Your task to perform on an android device: open app "Lyft - Rideshare, Bikes, Scooters & Transit" (install if not already installed), go to login, and select forgot password Image 0: 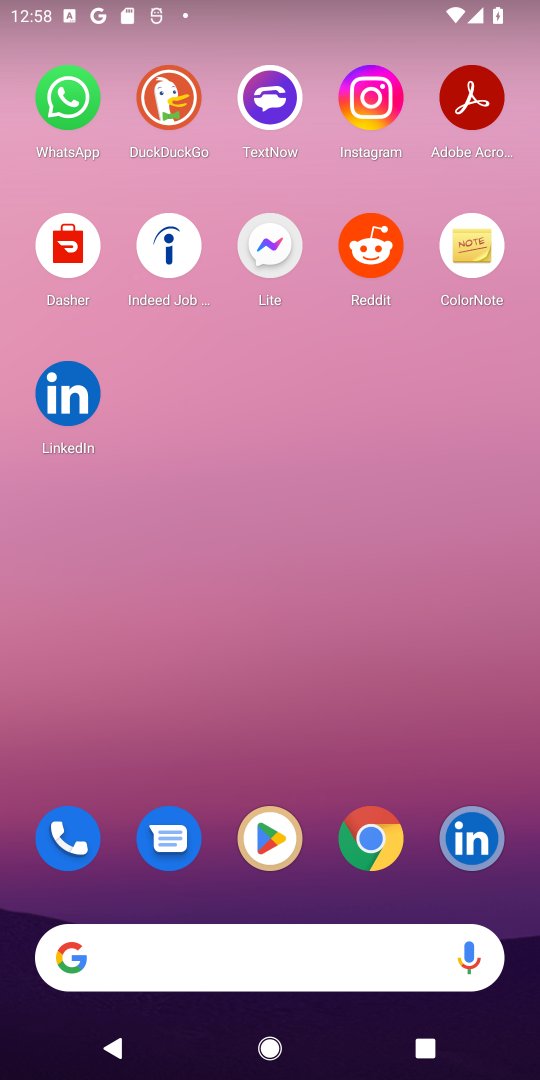
Step 0: click (271, 820)
Your task to perform on an android device: open app "Lyft - Rideshare, Bikes, Scooters & Transit" (install if not already installed), go to login, and select forgot password Image 1: 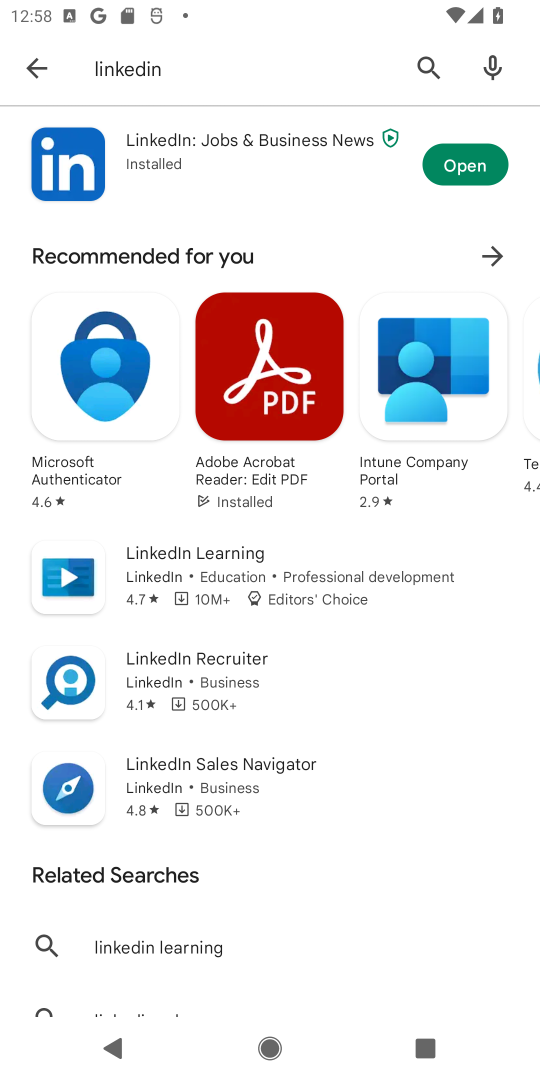
Step 1: click (414, 62)
Your task to perform on an android device: open app "Lyft - Rideshare, Bikes, Scooters & Transit" (install if not already installed), go to login, and select forgot password Image 2: 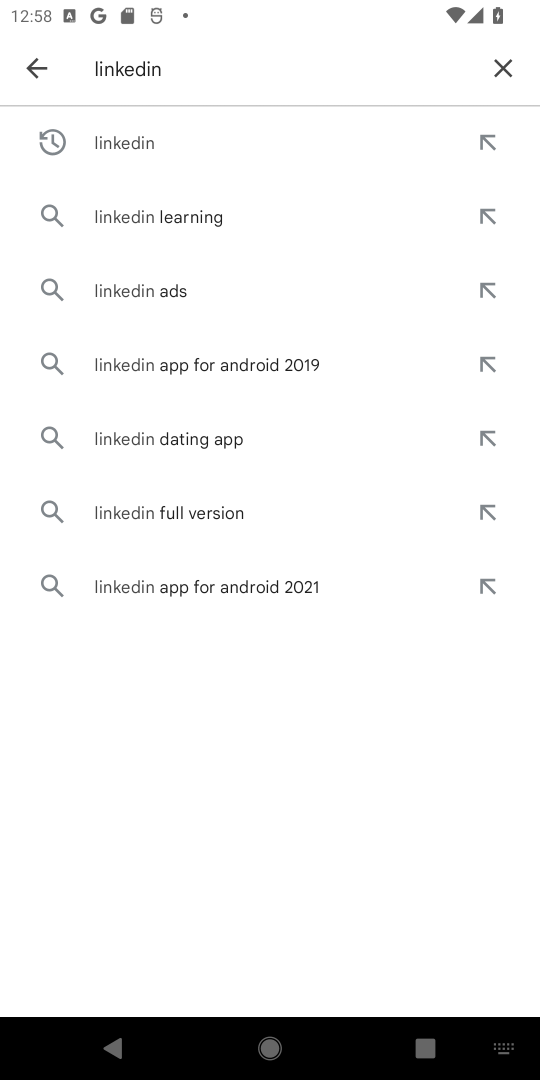
Step 2: click (506, 64)
Your task to perform on an android device: open app "Lyft - Rideshare, Bikes, Scooters & Transit" (install if not already installed), go to login, and select forgot password Image 3: 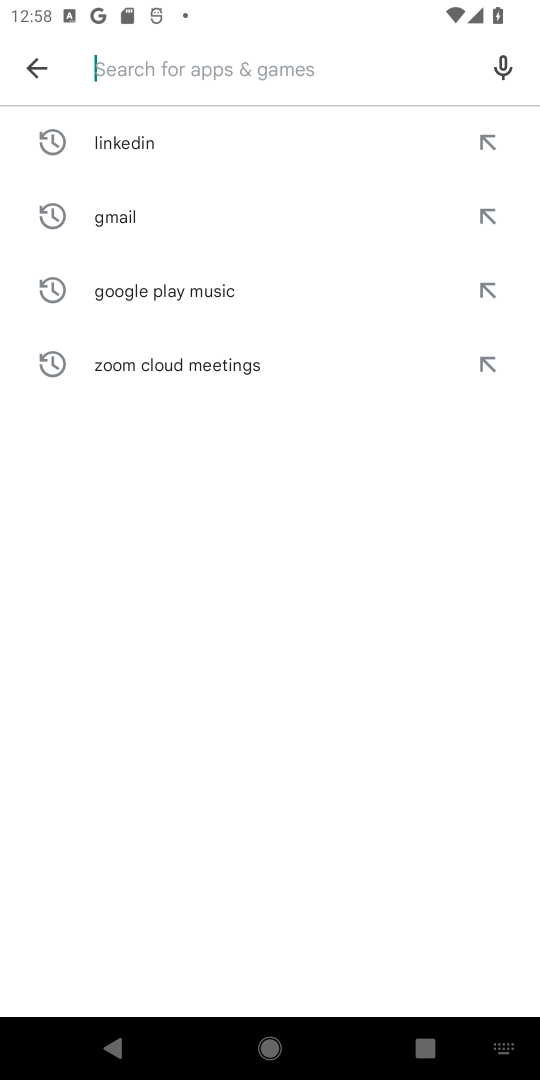
Step 3: type "Lyft - Rideshare, Bikes, Scooters & Transit"
Your task to perform on an android device: open app "Lyft - Rideshare, Bikes, Scooters & Transit" (install if not already installed), go to login, and select forgot password Image 4: 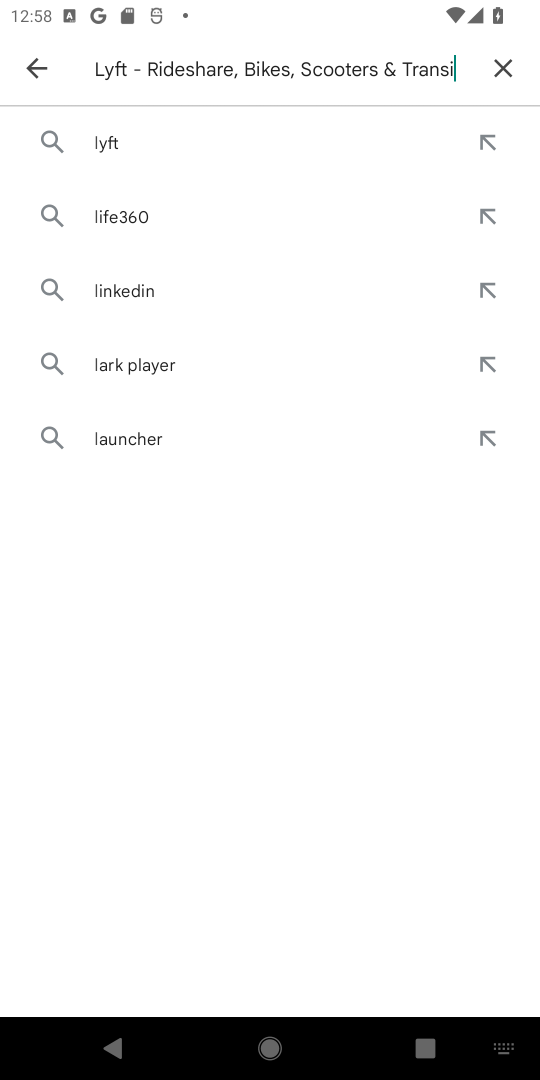
Step 4: type ""
Your task to perform on an android device: open app "Lyft - Rideshare, Bikes, Scooters & Transit" (install if not already installed), go to login, and select forgot password Image 5: 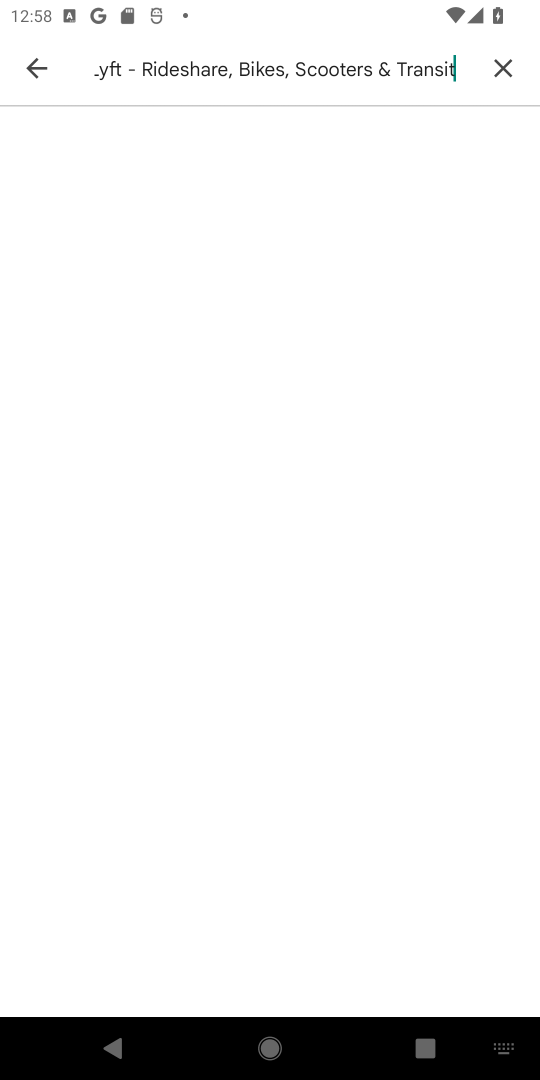
Step 5: click (496, 67)
Your task to perform on an android device: open app "Lyft - Rideshare, Bikes, Scooters & Transit" (install if not already installed), go to login, and select forgot password Image 6: 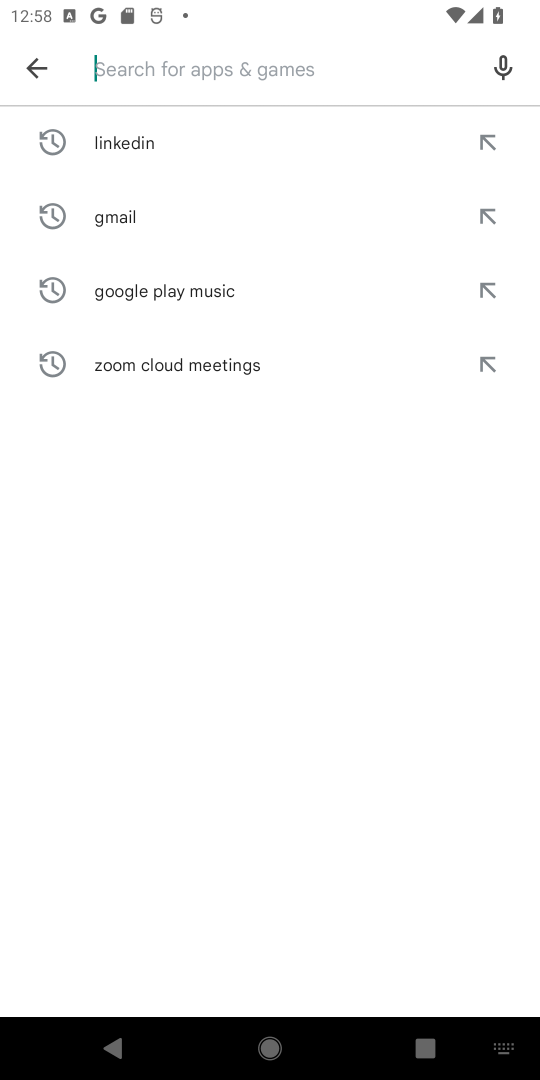
Step 6: type "Lyft"
Your task to perform on an android device: open app "Lyft - Rideshare, Bikes, Scooters & Transit" (install if not already installed), go to login, and select forgot password Image 7: 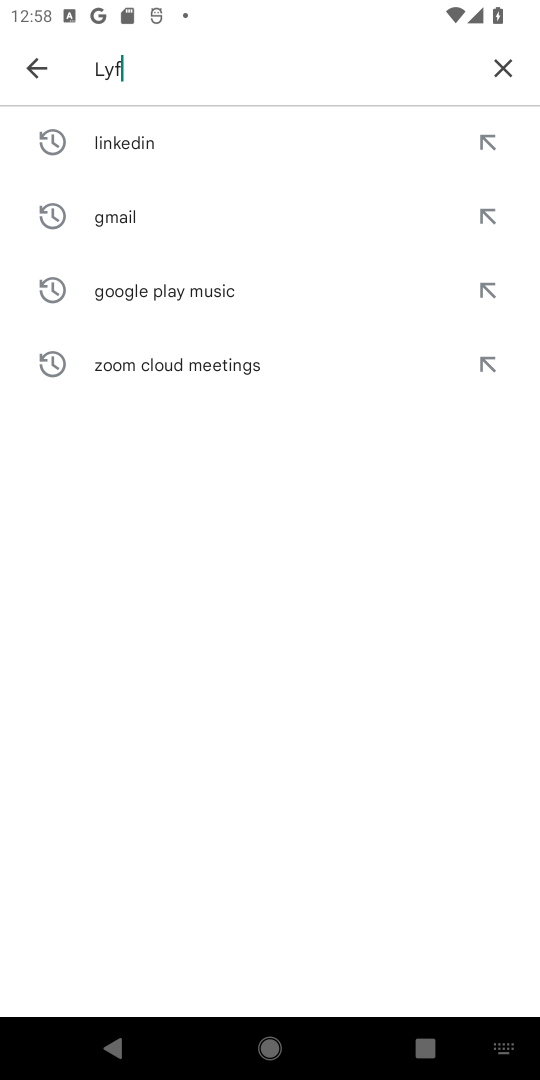
Step 7: type ""
Your task to perform on an android device: open app "Lyft - Rideshare, Bikes, Scooters & Transit" (install if not already installed), go to login, and select forgot password Image 8: 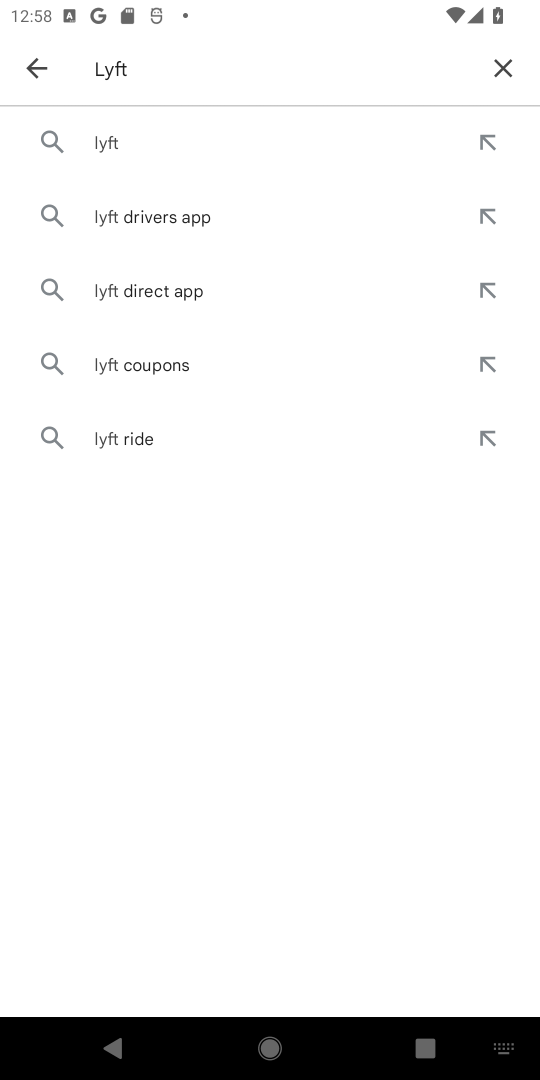
Step 8: click (157, 137)
Your task to perform on an android device: open app "Lyft - Rideshare, Bikes, Scooters & Transit" (install if not already installed), go to login, and select forgot password Image 9: 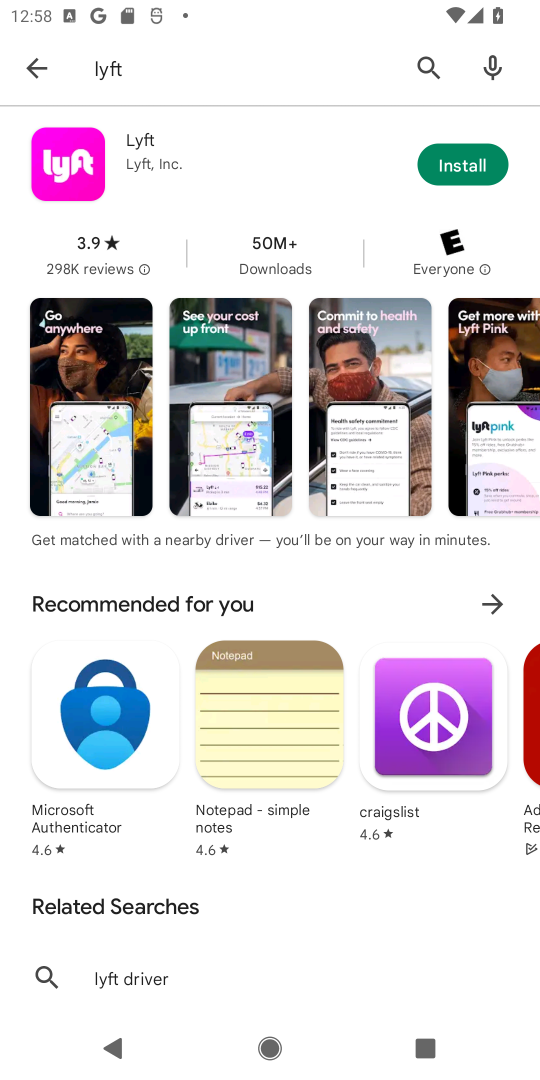
Step 9: click (478, 158)
Your task to perform on an android device: open app "Lyft - Rideshare, Bikes, Scooters & Transit" (install if not already installed), go to login, and select forgot password Image 10: 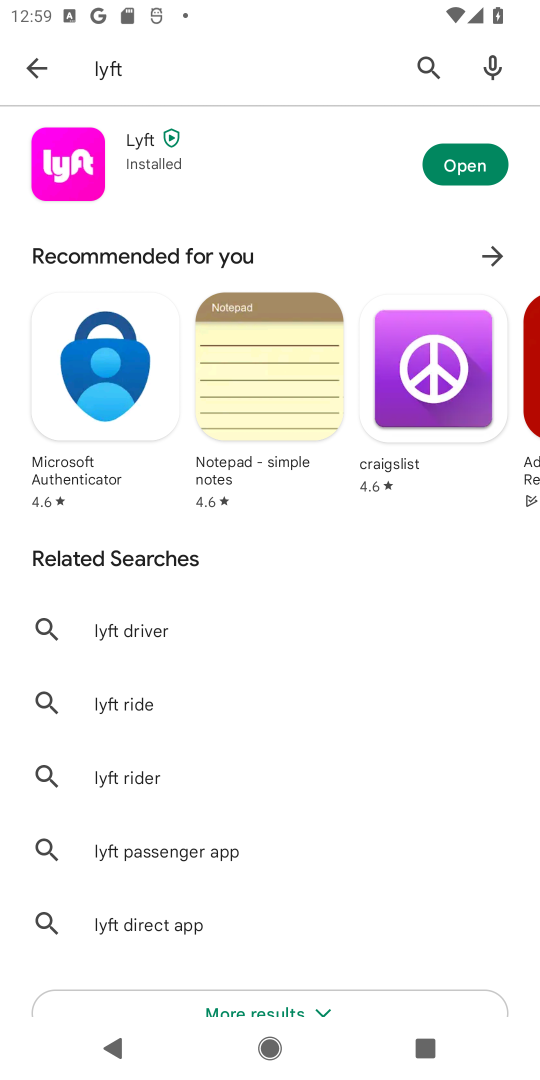
Step 10: click (478, 158)
Your task to perform on an android device: open app "Lyft - Rideshare, Bikes, Scooters & Transit" (install if not already installed), go to login, and select forgot password Image 11: 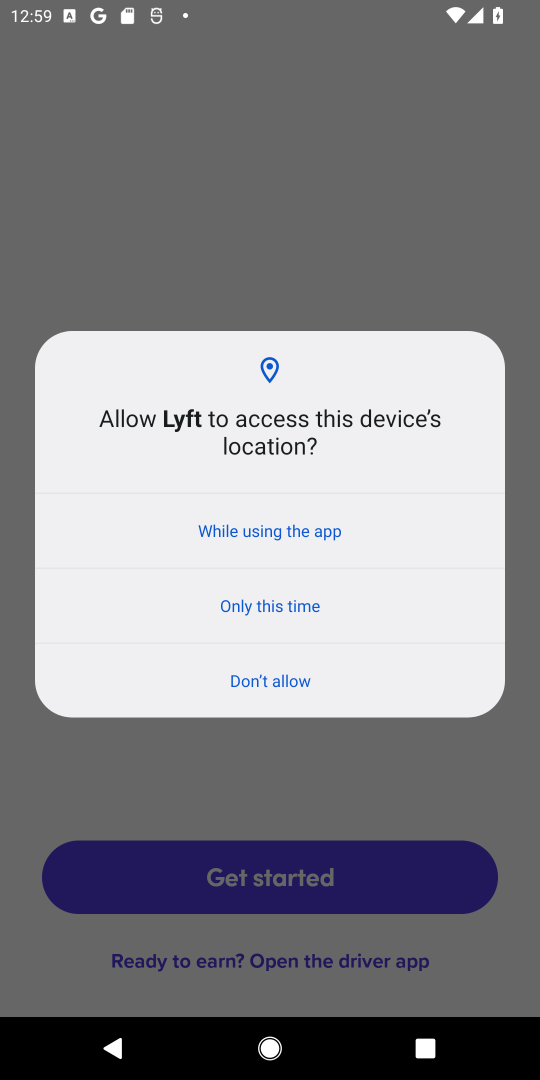
Step 11: task complete